Your task to perform on an android device: Search for the best vacuum on Amazon. Image 0: 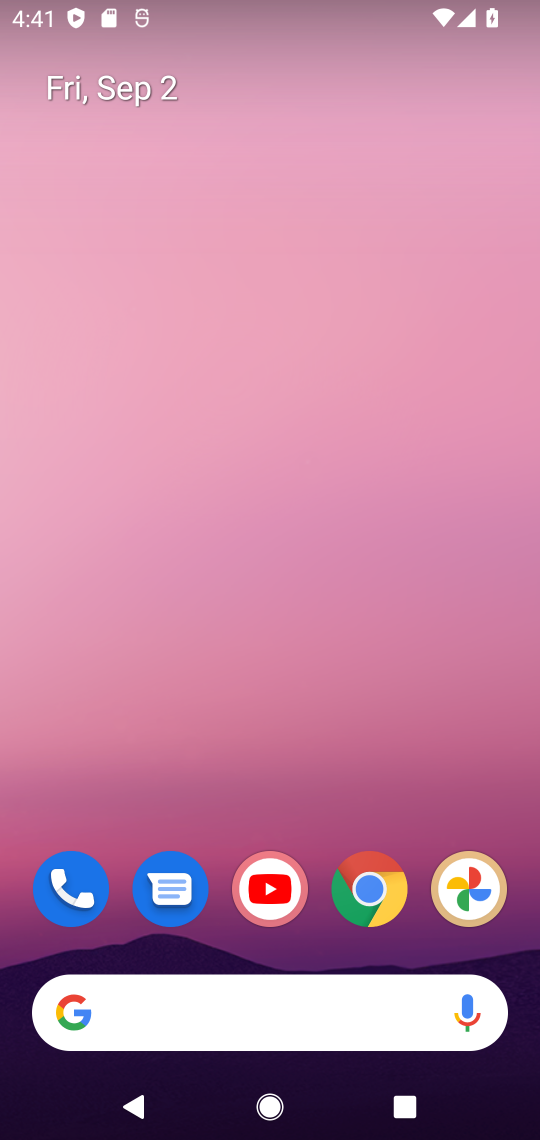
Step 0: click (359, 900)
Your task to perform on an android device: Search for the best vacuum on Amazon. Image 1: 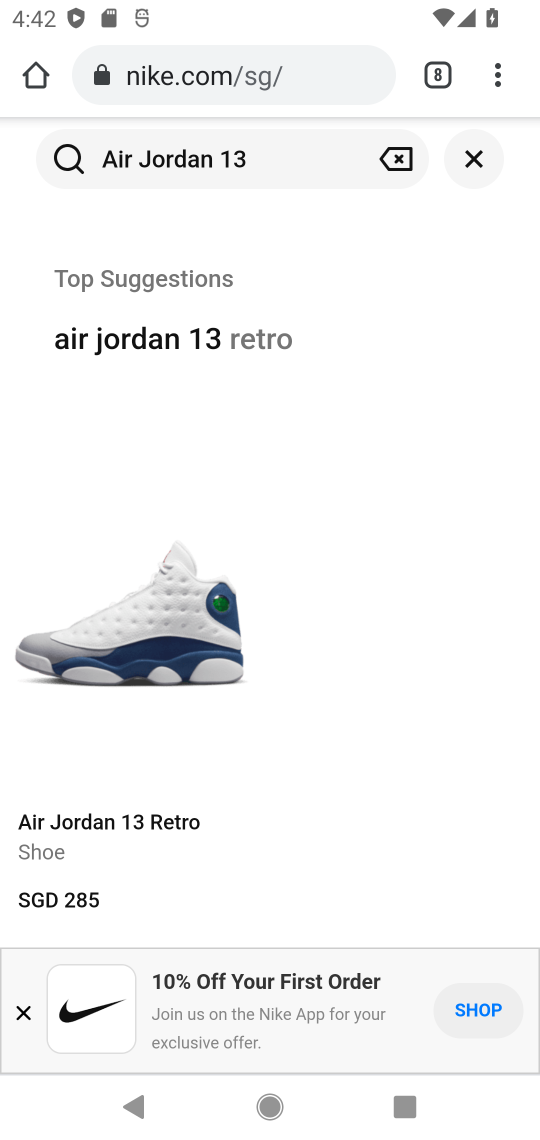
Step 1: click (429, 74)
Your task to perform on an android device: Search for the best vacuum on Amazon. Image 2: 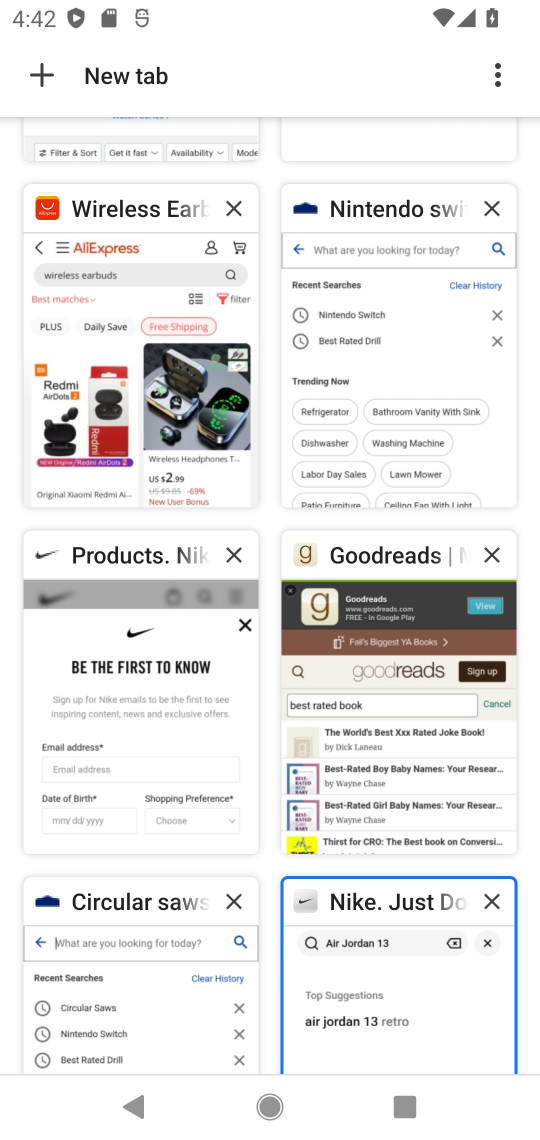
Step 2: click (52, 73)
Your task to perform on an android device: Search for the best vacuum on Amazon. Image 3: 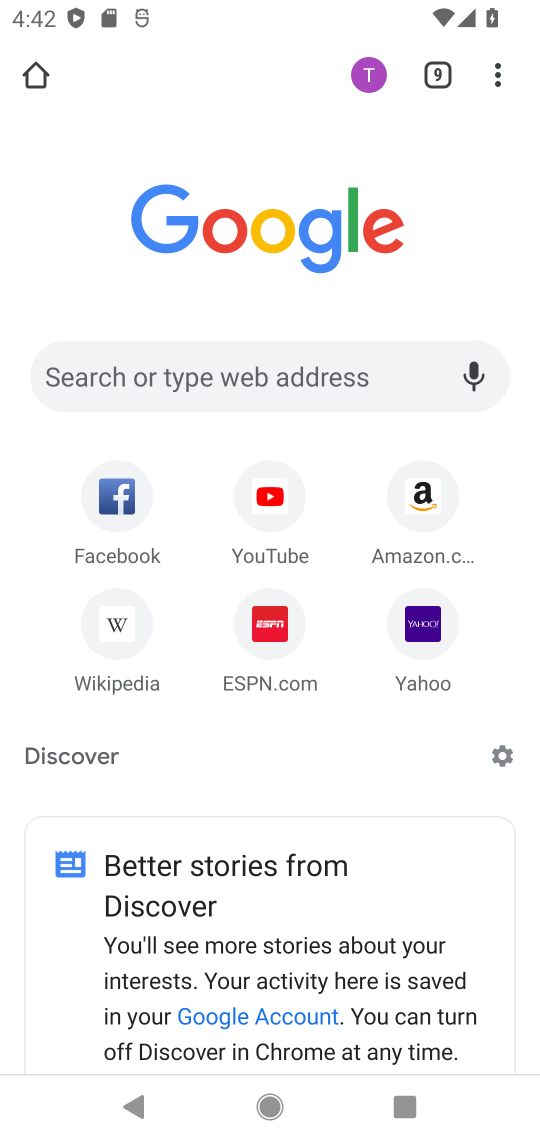
Step 3: click (431, 473)
Your task to perform on an android device: Search for the best vacuum on Amazon. Image 4: 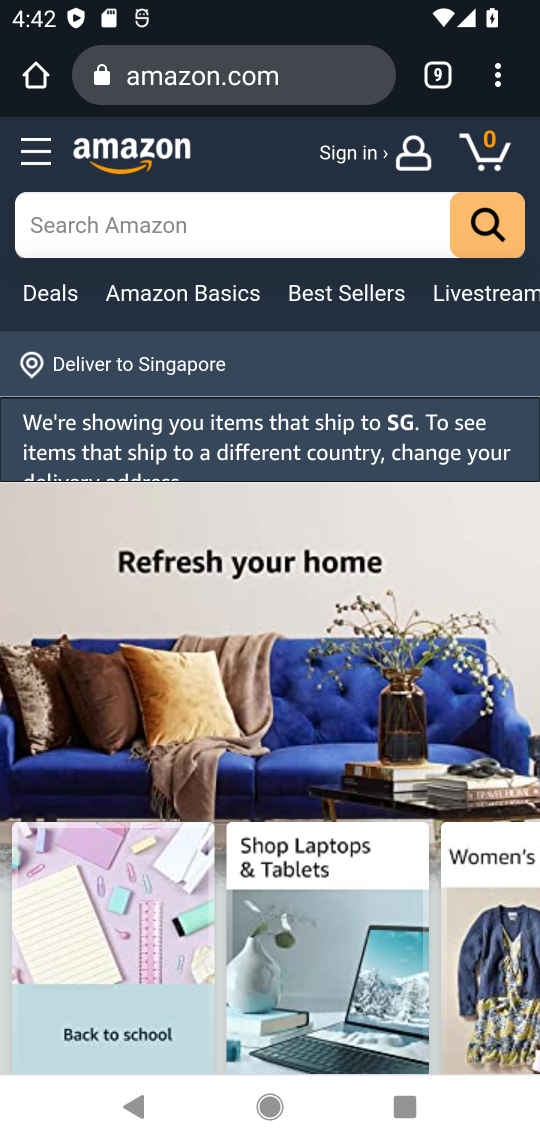
Step 4: click (246, 227)
Your task to perform on an android device: Search for the best vacuum on Amazon. Image 5: 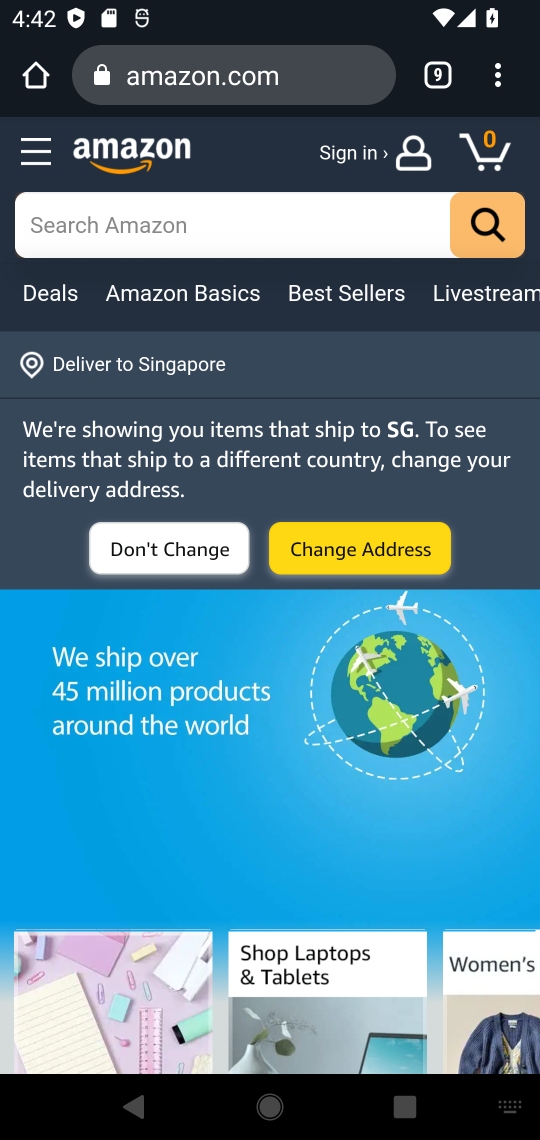
Step 5: click (180, 213)
Your task to perform on an android device: Search for the best vacuum on Amazon. Image 6: 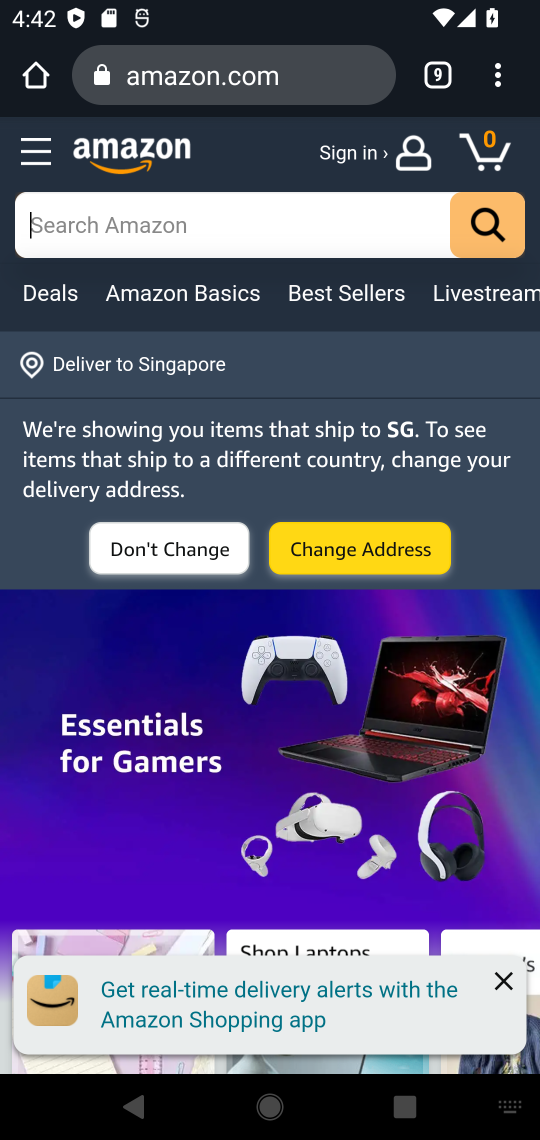
Step 6: type "vacuum"
Your task to perform on an android device: Search for the best vacuum on Amazon. Image 7: 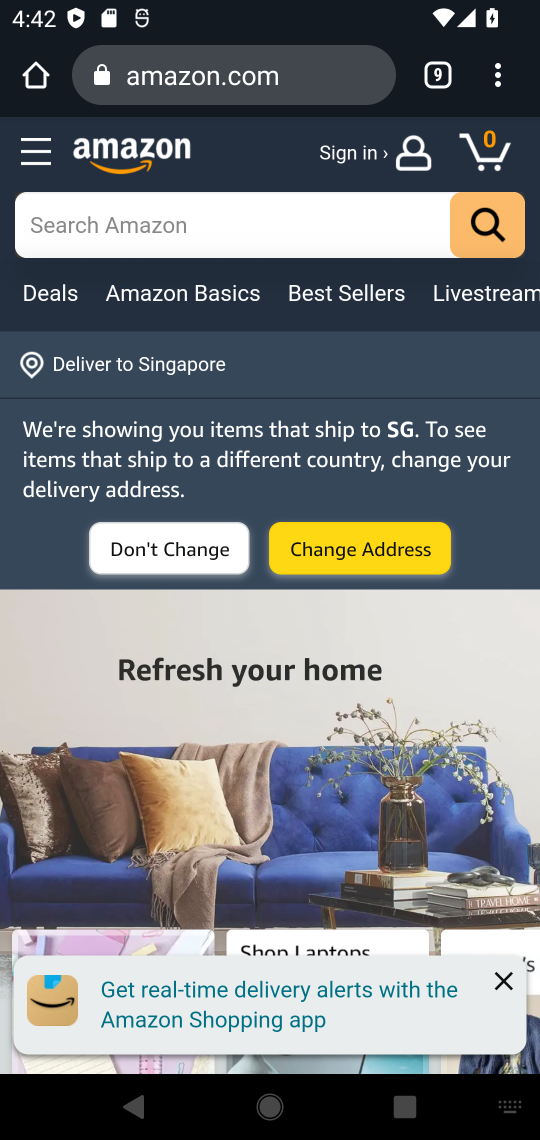
Step 7: type ""
Your task to perform on an android device: Search for the best vacuum on Amazon. Image 8: 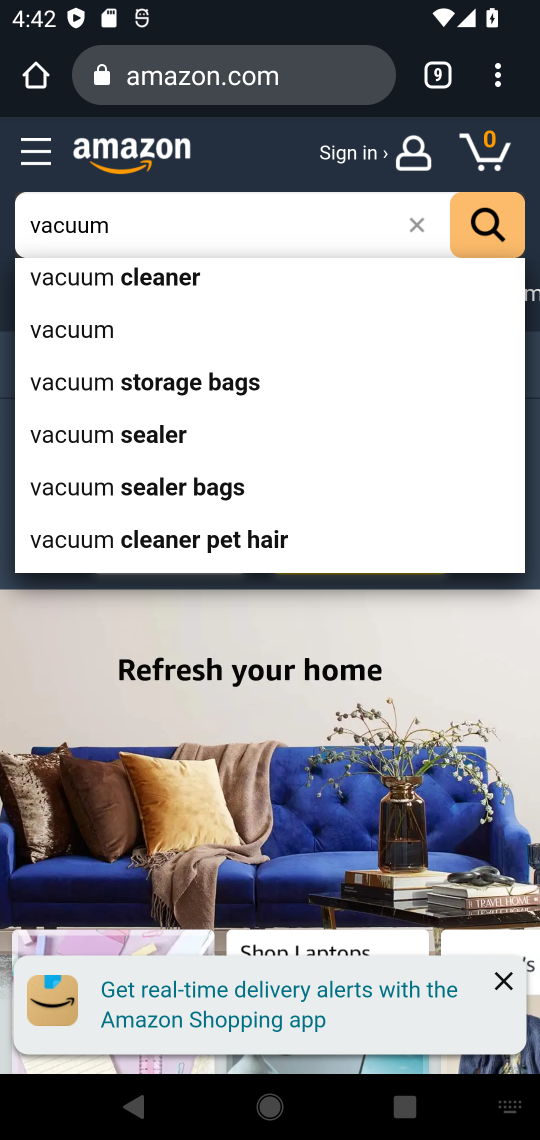
Step 8: click (59, 337)
Your task to perform on an android device: Search for the best vacuum on Amazon. Image 9: 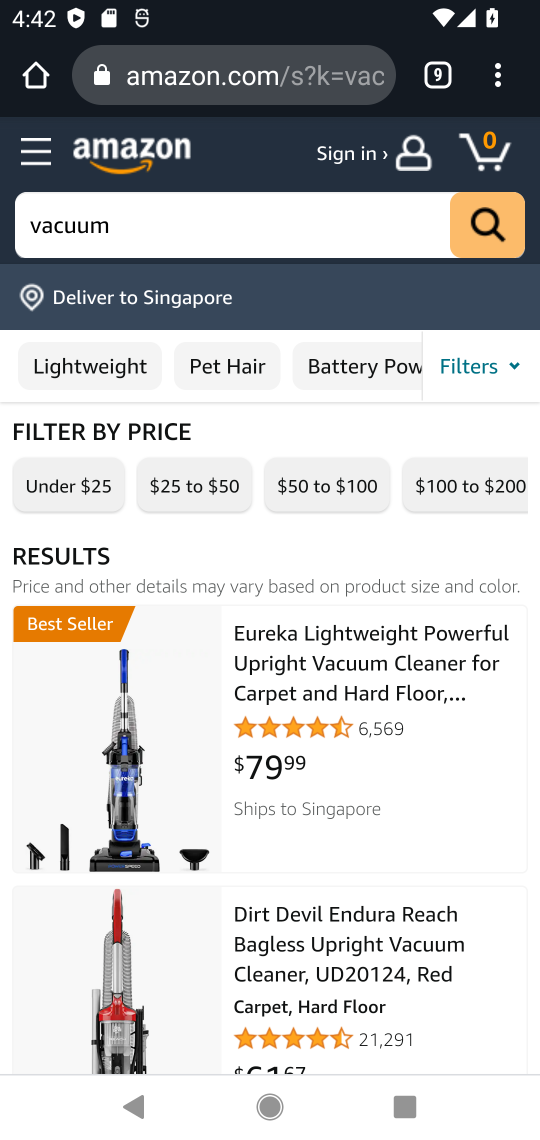
Step 9: drag from (400, 924) to (413, 585)
Your task to perform on an android device: Search for the best vacuum on Amazon. Image 10: 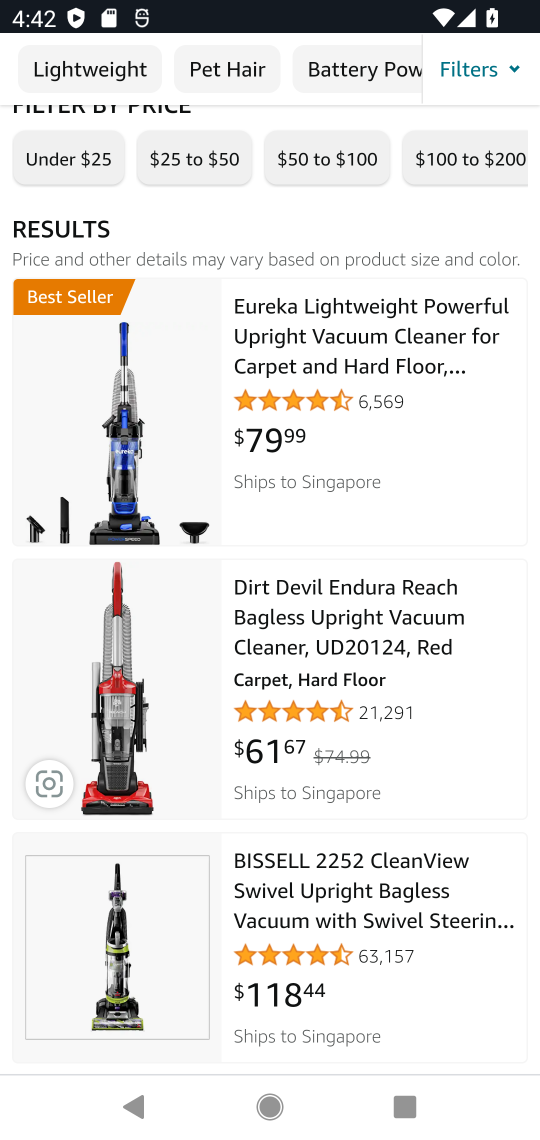
Step 10: drag from (404, 758) to (375, 458)
Your task to perform on an android device: Search for the best vacuum on Amazon. Image 11: 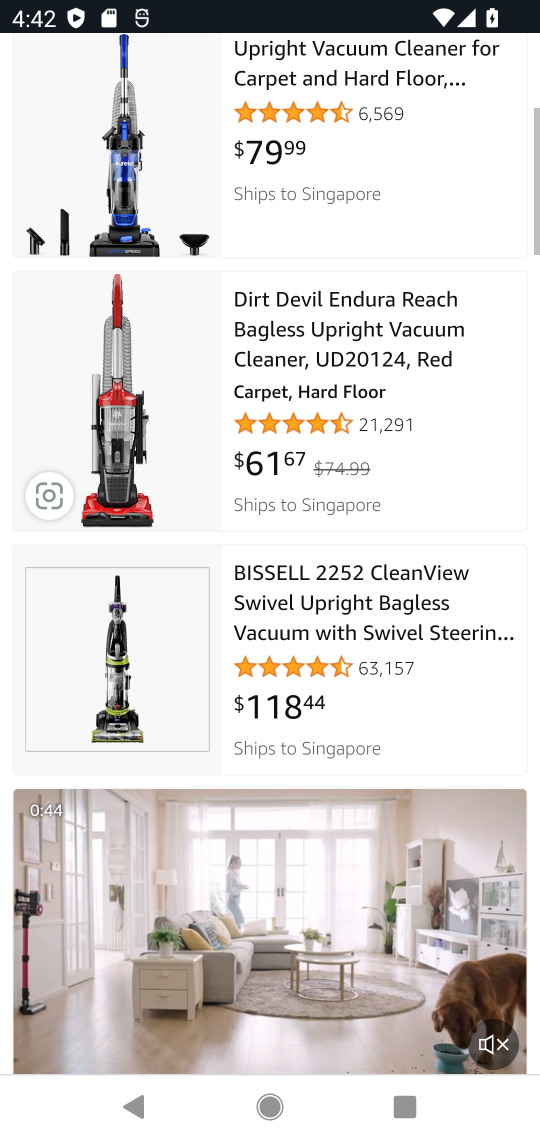
Step 11: click (380, 432)
Your task to perform on an android device: Search for the best vacuum on Amazon. Image 12: 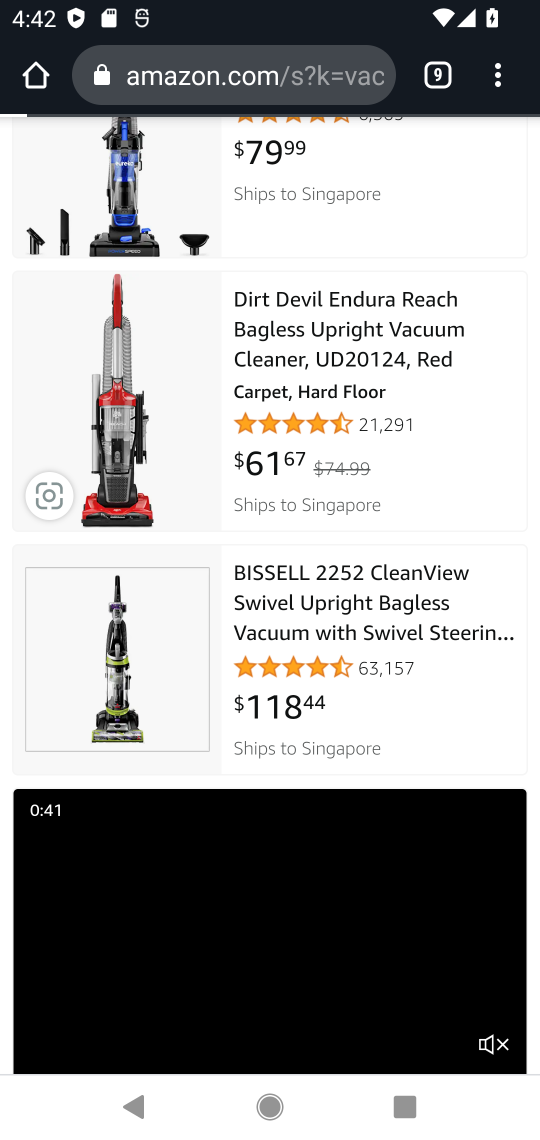
Step 12: task complete